Your task to perform on an android device: Open Reddit.com Image 0: 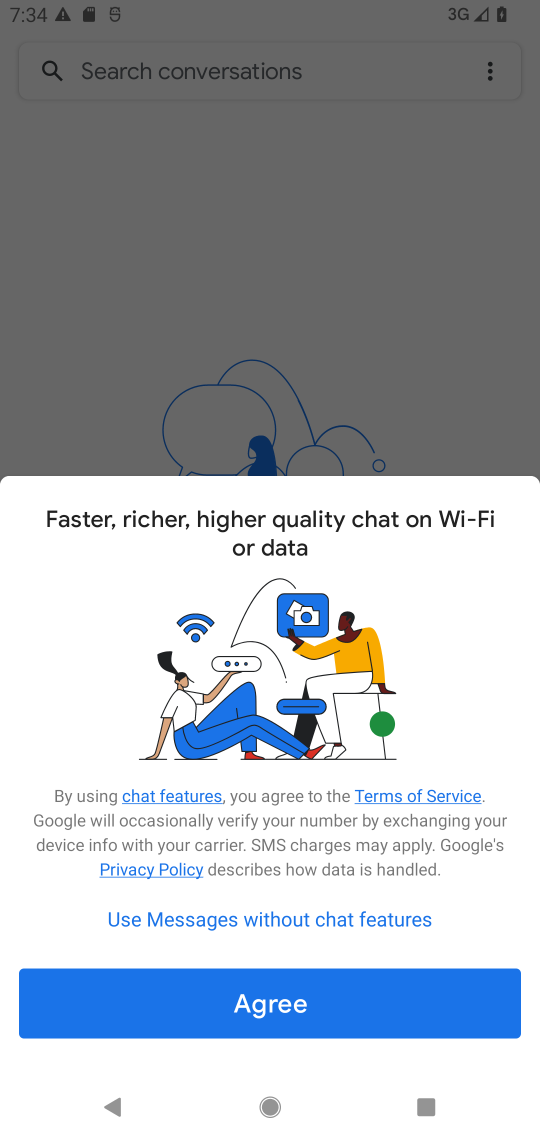
Step 0: press home button
Your task to perform on an android device: Open Reddit.com Image 1: 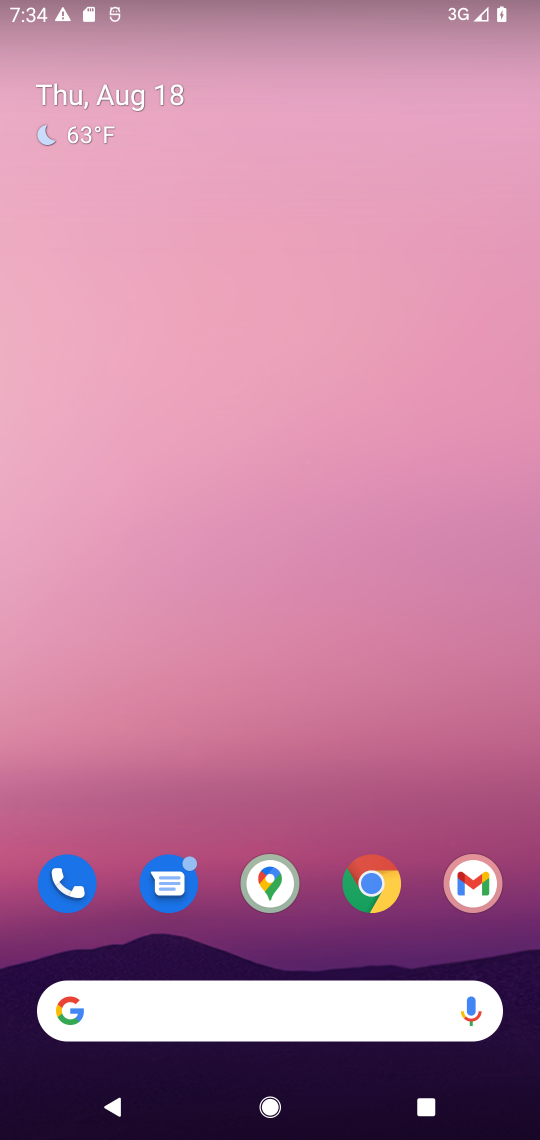
Step 1: click (149, 1009)
Your task to perform on an android device: Open Reddit.com Image 2: 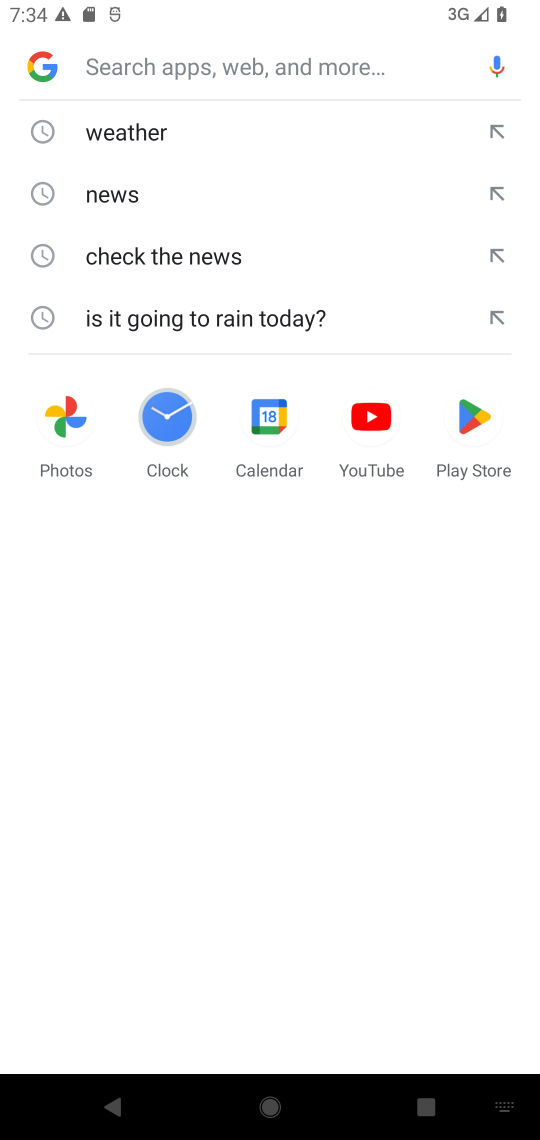
Step 2: type "Reddit.com"
Your task to perform on an android device: Open Reddit.com Image 3: 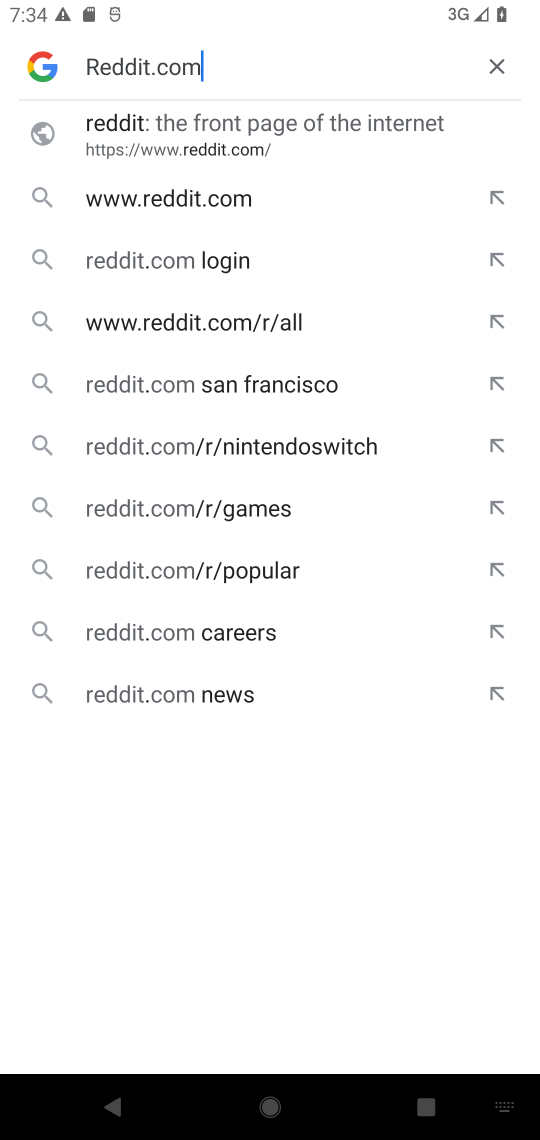
Step 3: type ""
Your task to perform on an android device: Open Reddit.com Image 4: 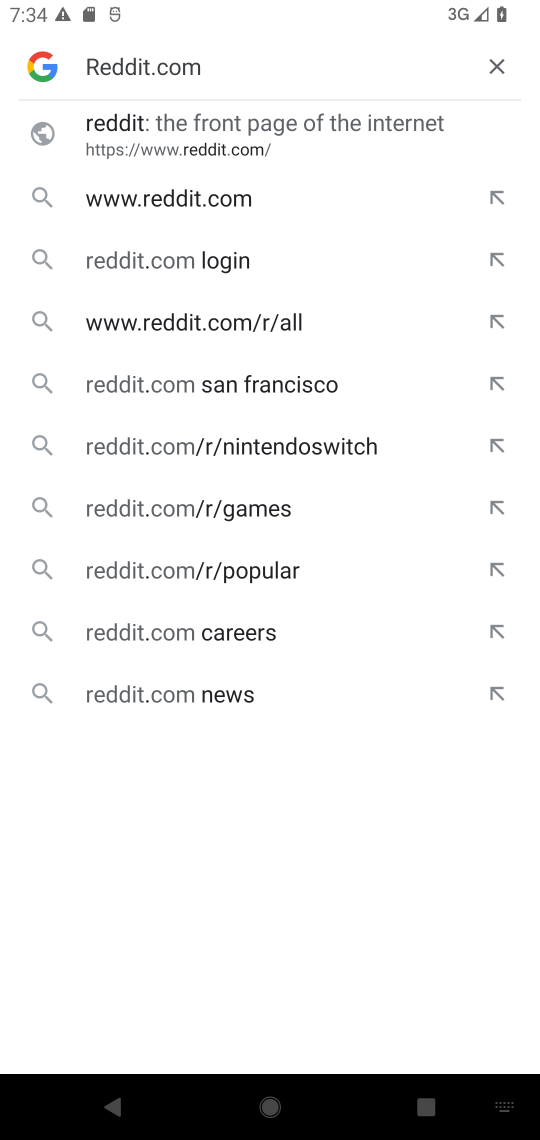
Step 4: type ""
Your task to perform on an android device: Open Reddit.com Image 5: 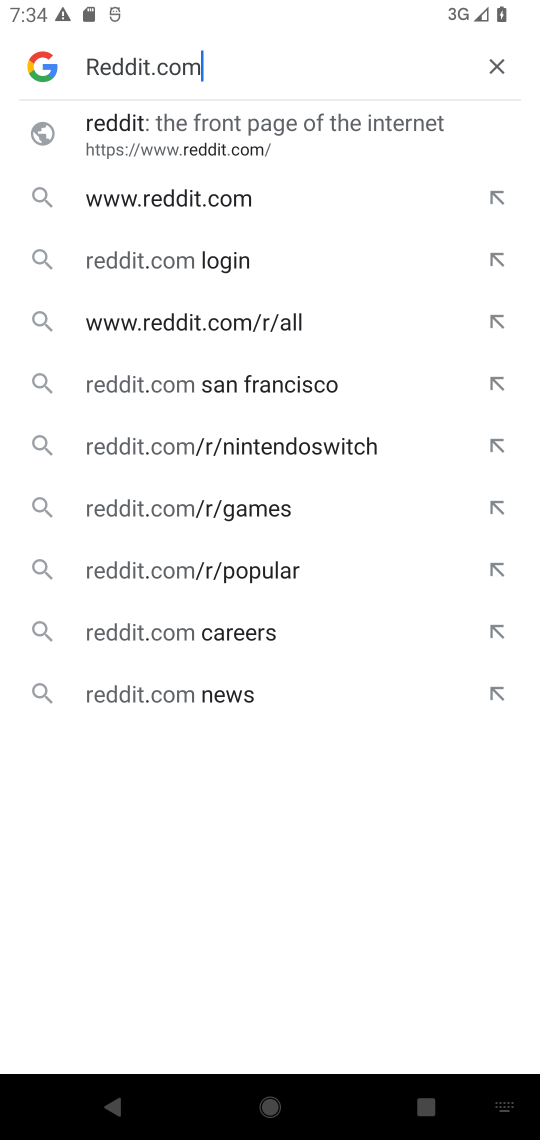
Step 5: task complete